Your task to perform on an android device: change the upload size in google photos Image 0: 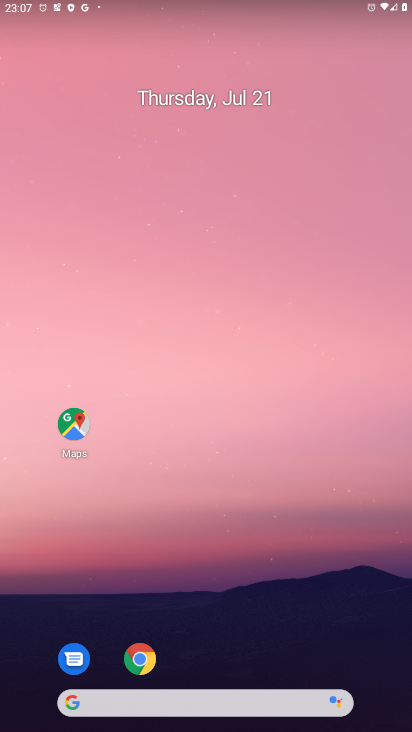
Step 0: drag from (177, 706) to (200, 197)
Your task to perform on an android device: change the upload size in google photos Image 1: 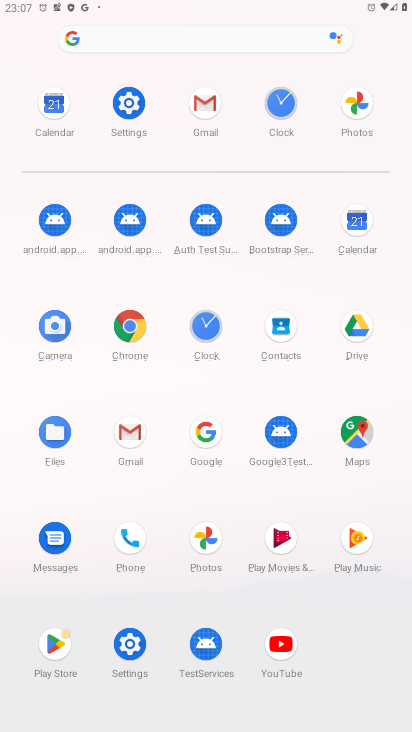
Step 1: click (355, 102)
Your task to perform on an android device: change the upload size in google photos Image 2: 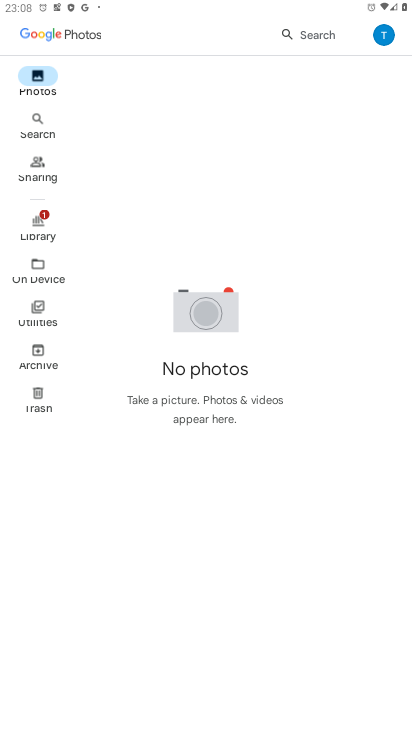
Step 2: click (382, 38)
Your task to perform on an android device: change the upload size in google photos Image 3: 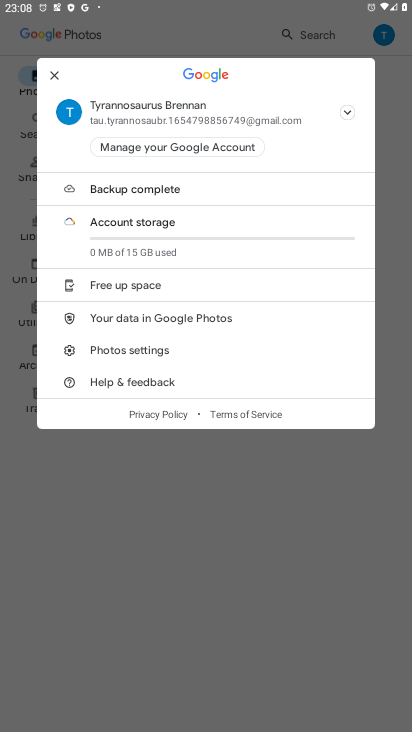
Step 3: click (123, 345)
Your task to perform on an android device: change the upload size in google photos Image 4: 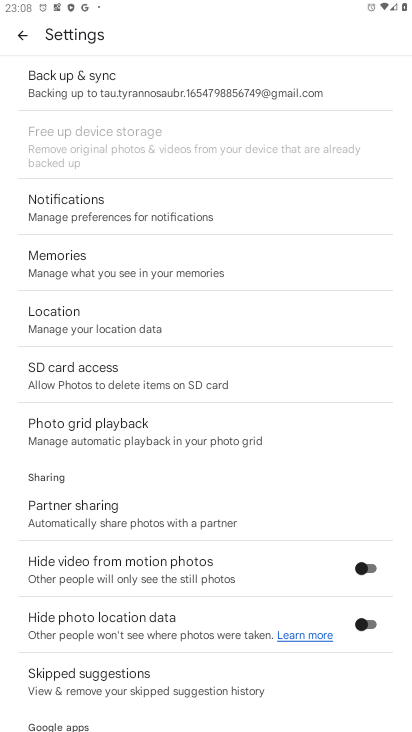
Step 4: click (167, 89)
Your task to perform on an android device: change the upload size in google photos Image 5: 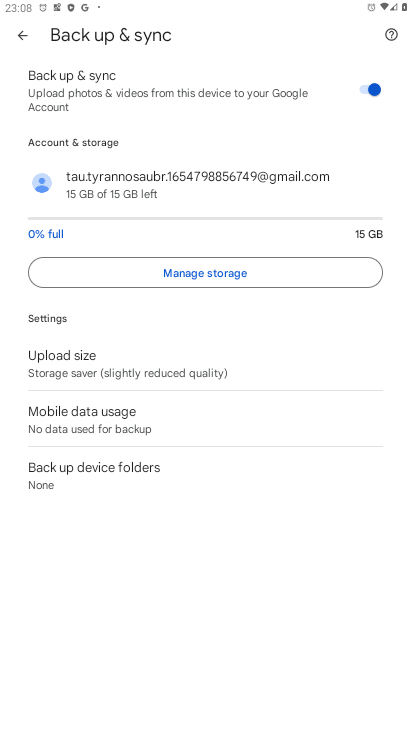
Step 5: click (122, 364)
Your task to perform on an android device: change the upload size in google photos Image 6: 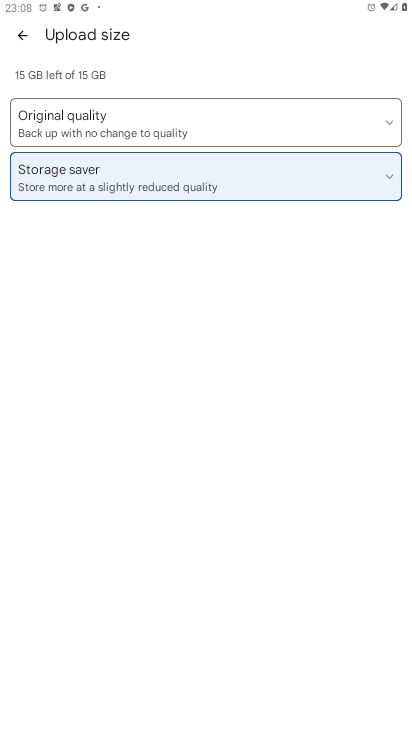
Step 6: click (84, 113)
Your task to perform on an android device: change the upload size in google photos Image 7: 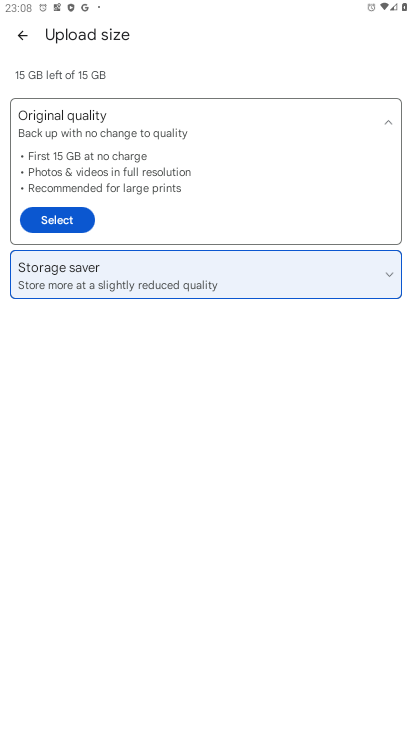
Step 7: click (62, 223)
Your task to perform on an android device: change the upload size in google photos Image 8: 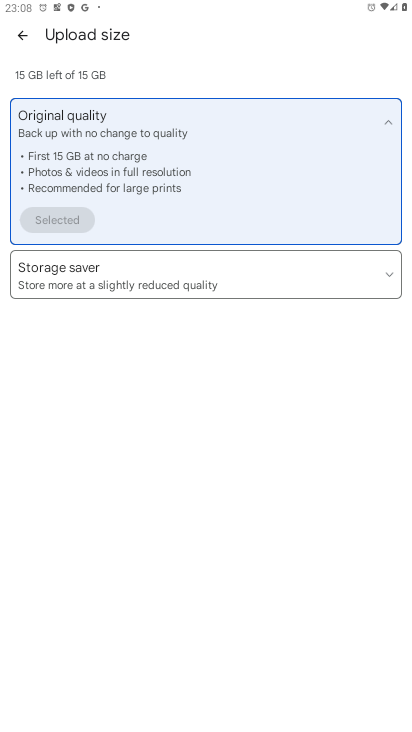
Step 8: task complete